Your task to perform on an android device: change notification settings in the gmail app Image 0: 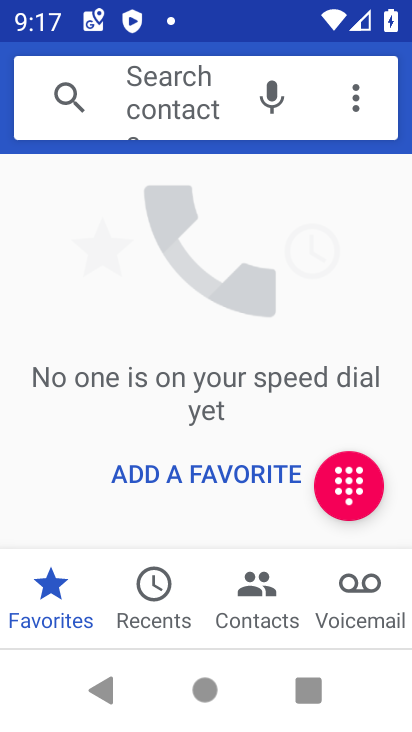
Step 0: press home button
Your task to perform on an android device: change notification settings in the gmail app Image 1: 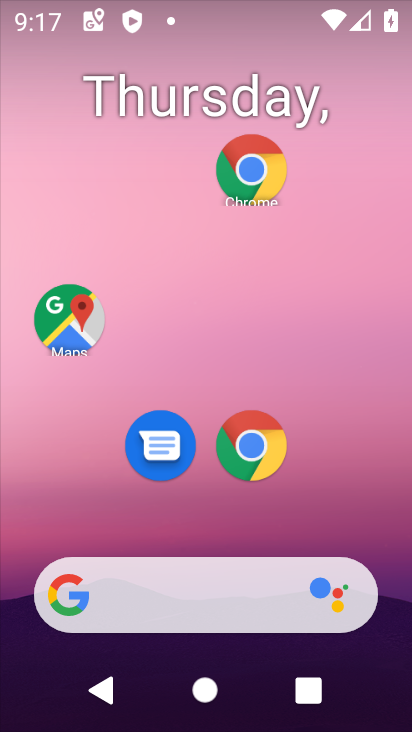
Step 1: drag from (199, 519) to (252, 3)
Your task to perform on an android device: change notification settings in the gmail app Image 2: 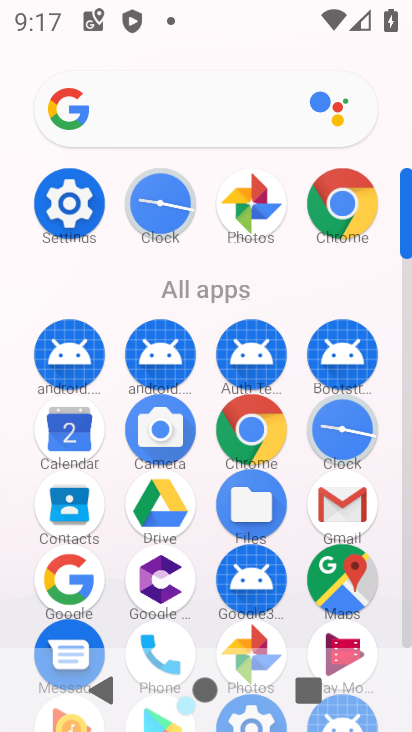
Step 2: click (342, 492)
Your task to perform on an android device: change notification settings in the gmail app Image 3: 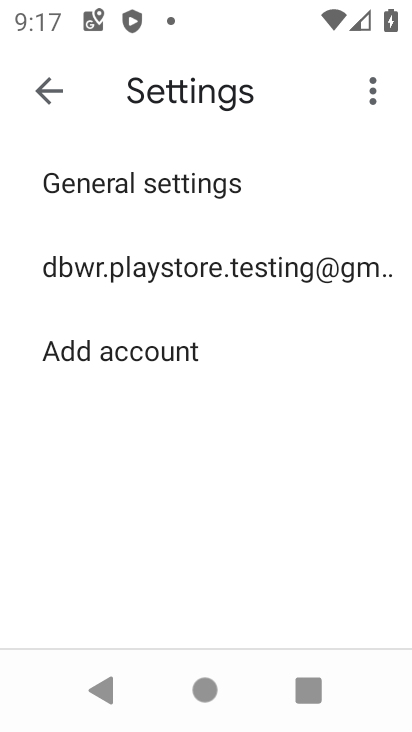
Step 3: click (178, 174)
Your task to perform on an android device: change notification settings in the gmail app Image 4: 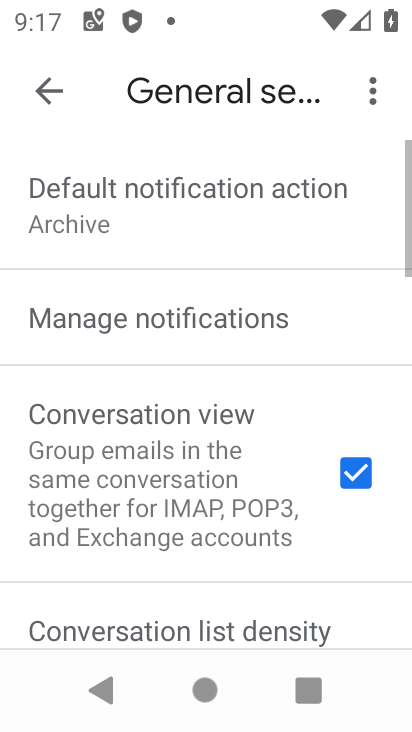
Step 4: click (169, 322)
Your task to perform on an android device: change notification settings in the gmail app Image 5: 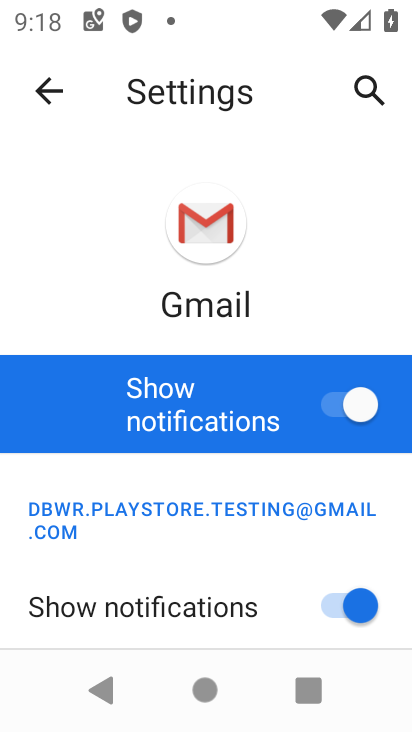
Step 5: click (363, 403)
Your task to perform on an android device: change notification settings in the gmail app Image 6: 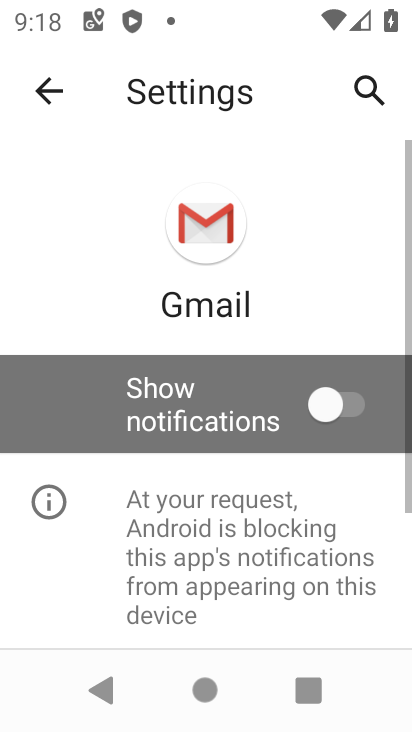
Step 6: task complete